Your task to perform on an android device: What is the recent news? Image 0: 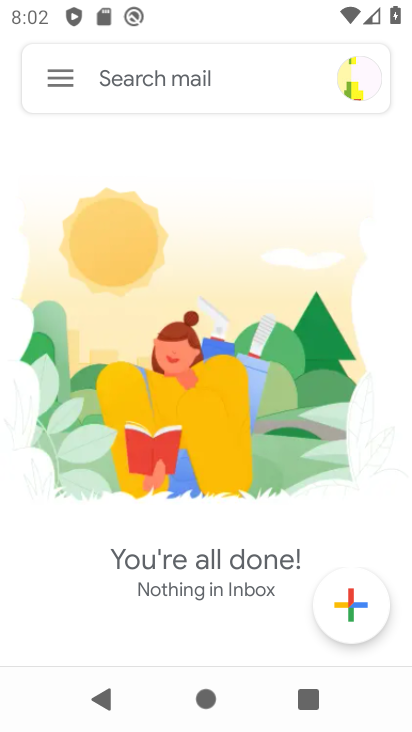
Step 0: press home button
Your task to perform on an android device: What is the recent news? Image 1: 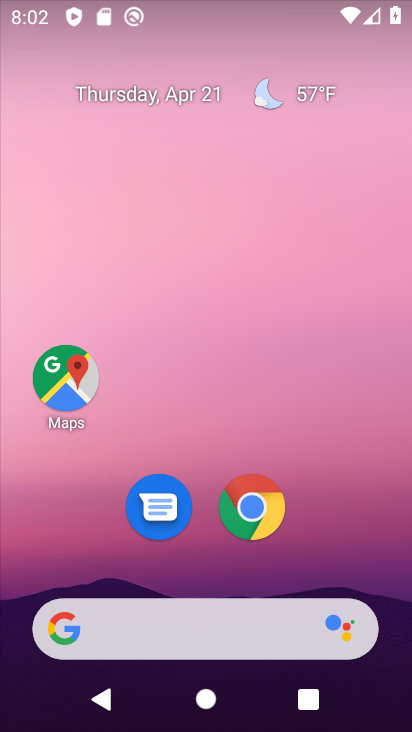
Step 1: click (252, 507)
Your task to perform on an android device: What is the recent news? Image 2: 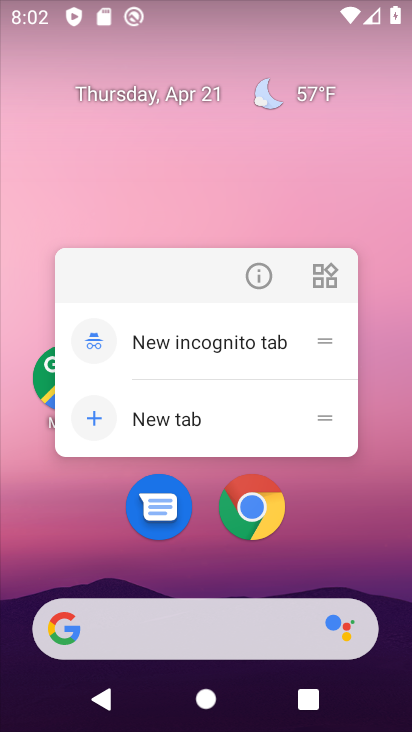
Step 2: click (252, 507)
Your task to perform on an android device: What is the recent news? Image 3: 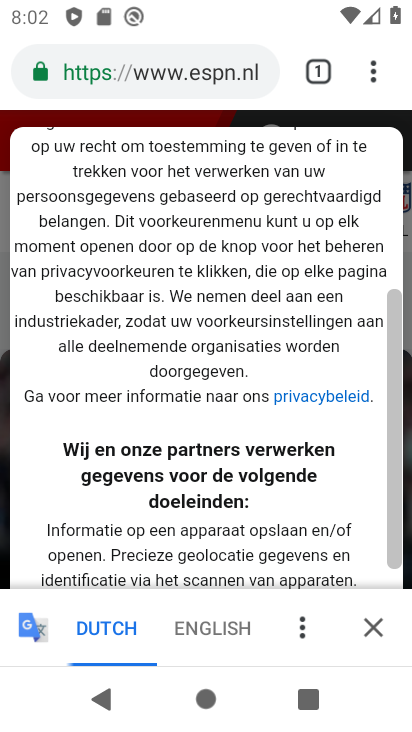
Step 3: click (206, 67)
Your task to perform on an android device: What is the recent news? Image 4: 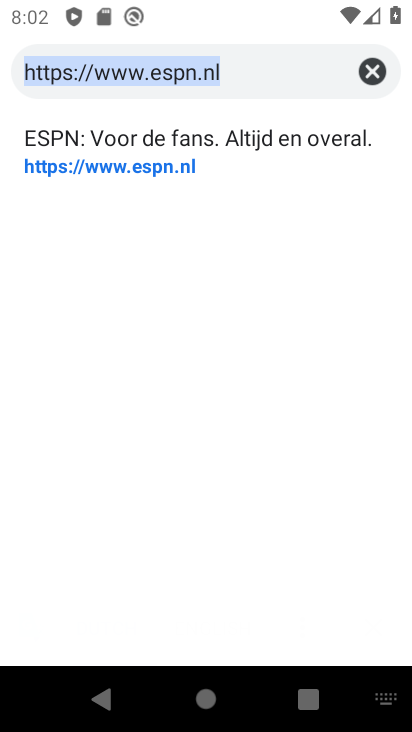
Step 4: click (364, 66)
Your task to perform on an android device: What is the recent news? Image 5: 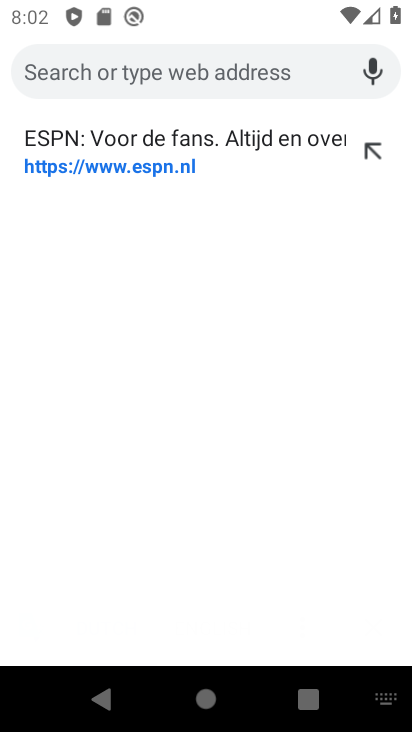
Step 5: click (302, 68)
Your task to perform on an android device: What is the recent news? Image 6: 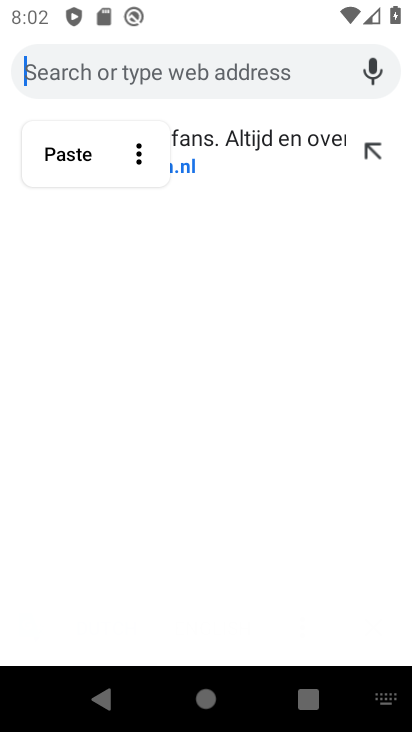
Step 6: type "What is the recent news?"
Your task to perform on an android device: What is the recent news? Image 7: 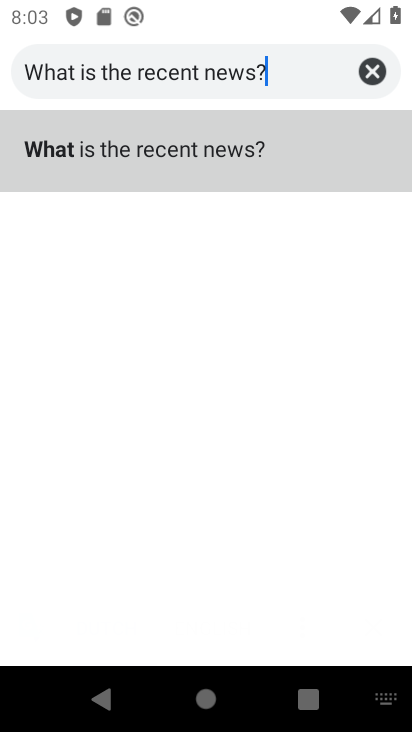
Step 7: click (77, 152)
Your task to perform on an android device: What is the recent news? Image 8: 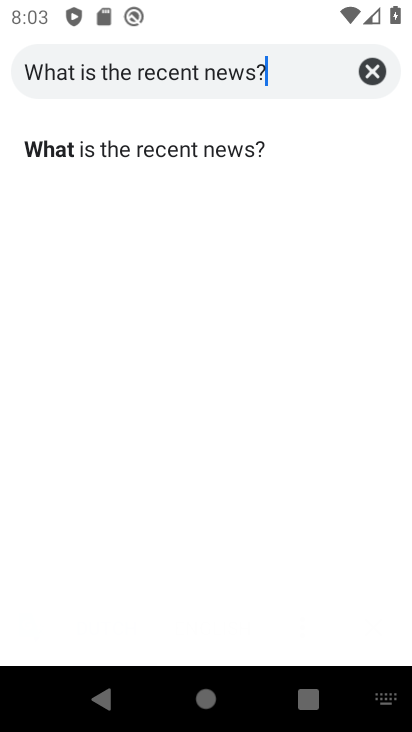
Step 8: click (40, 158)
Your task to perform on an android device: What is the recent news? Image 9: 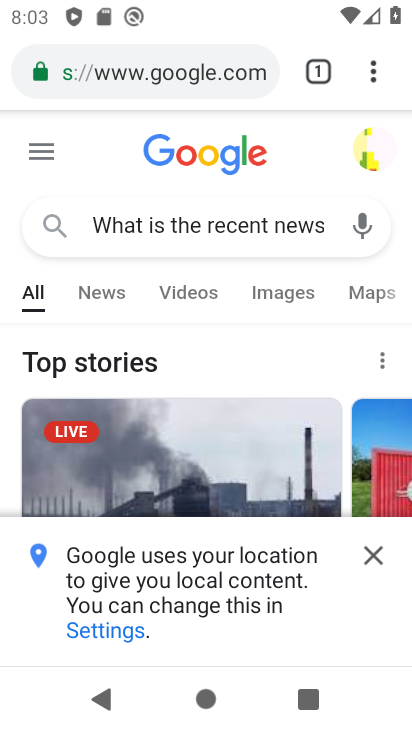
Step 9: task complete